Your task to perform on an android device: change the upload size in google photos Image 0: 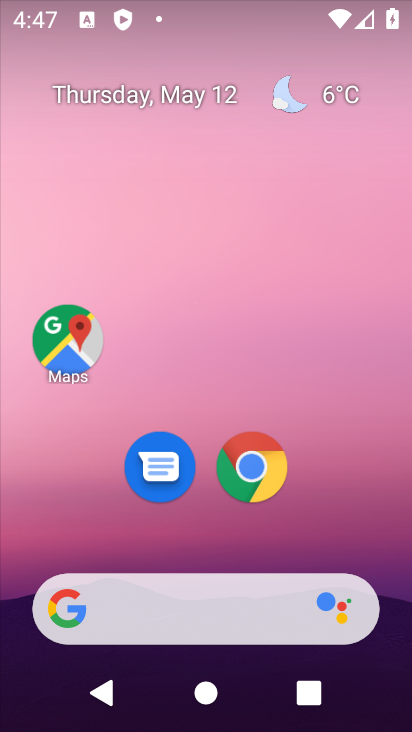
Step 0: drag from (234, 625) to (211, 96)
Your task to perform on an android device: change the upload size in google photos Image 1: 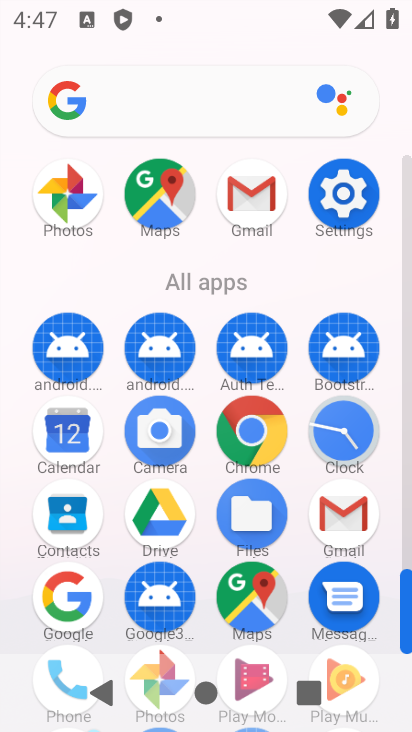
Step 1: drag from (248, 612) to (291, 180)
Your task to perform on an android device: change the upload size in google photos Image 2: 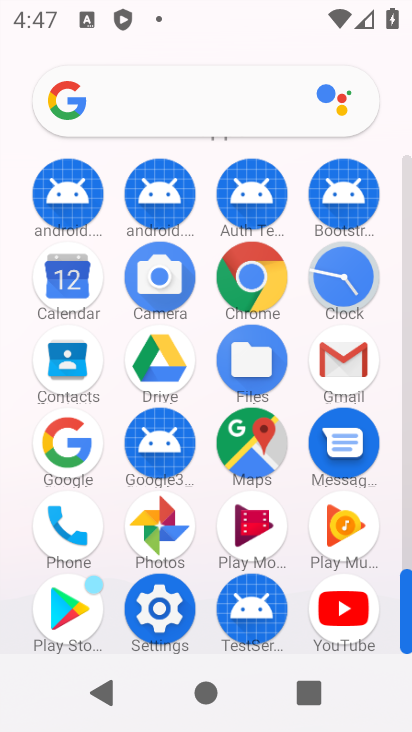
Step 2: click (165, 520)
Your task to perform on an android device: change the upload size in google photos Image 3: 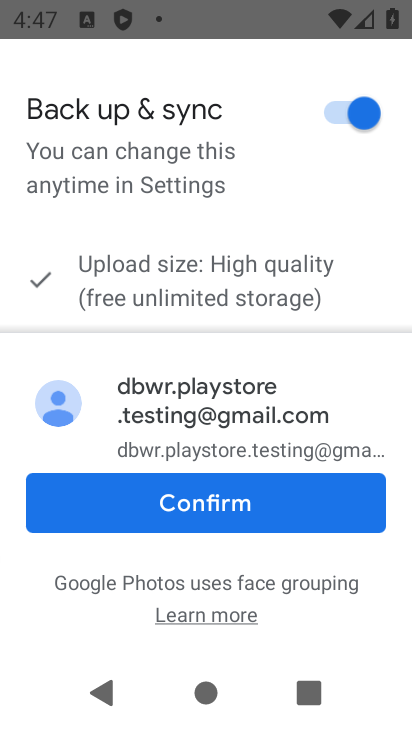
Step 3: click (243, 509)
Your task to perform on an android device: change the upload size in google photos Image 4: 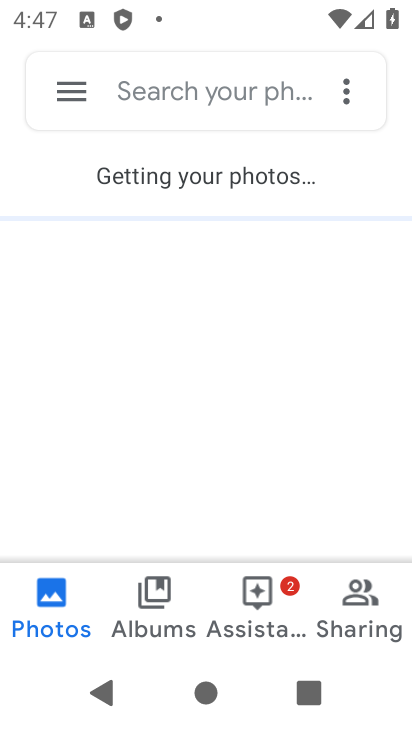
Step 4: click (75, 94)
Your task to perform on an android device: change the upload size in google photos Image 5: 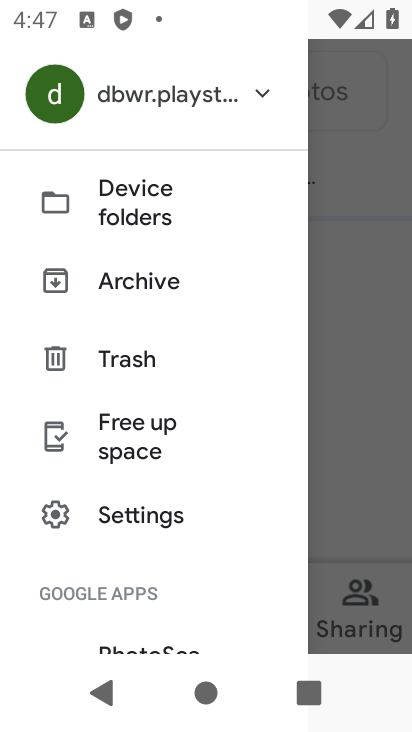
Step 5: click (140, 508)
Your task to perform on an android device: change the upload size in google photos Image 6: 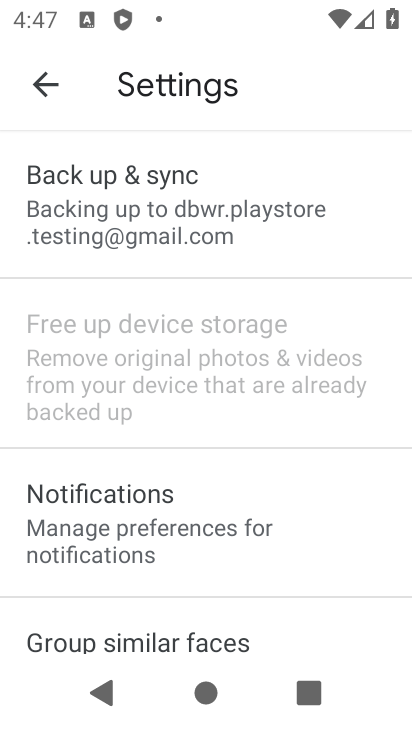
Step 6: click (233, 176)
Your task to perform on an android device: change the upload size in google photos Image 7: 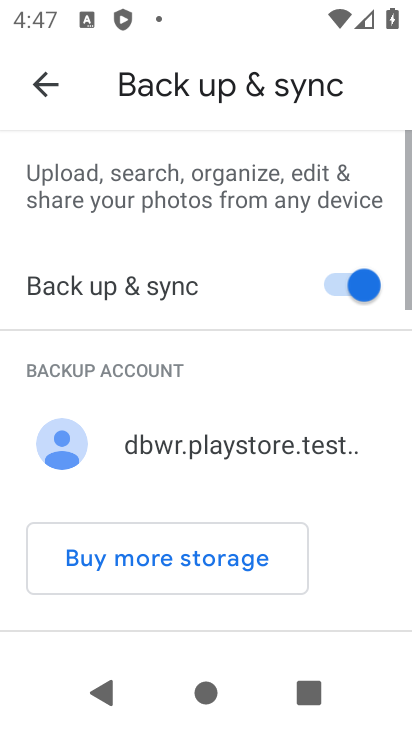
Step 7: drag from (90, 556) to (185, 105)
Your task to perform on an android device: change the upload size in google photos Image 8: 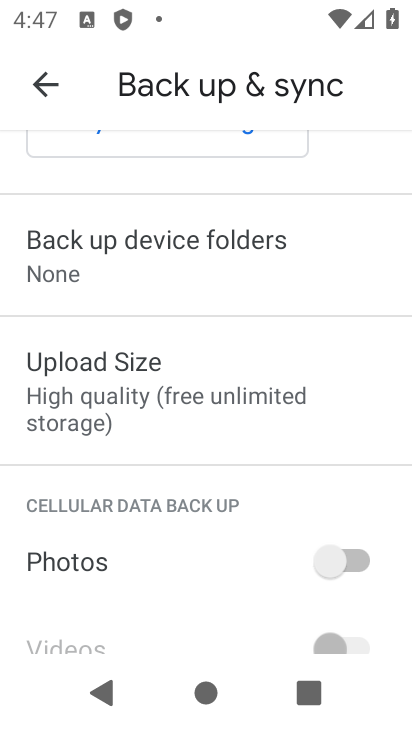
Step 8: click (187, 415)
Your task to perform on an android device: change the upload size in google photos Image 9: 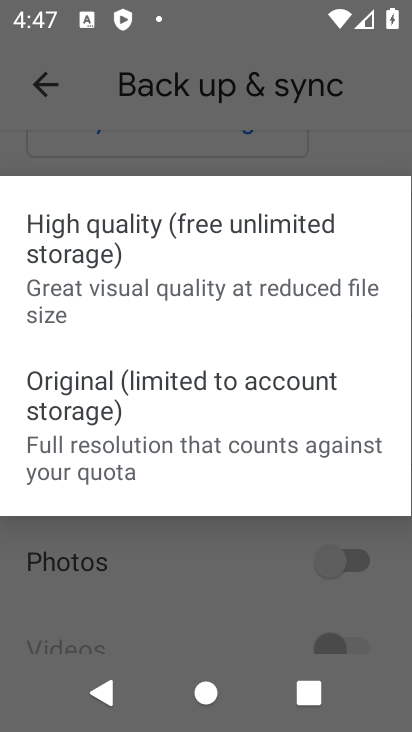
Step 9: click (193, 419)
Your task to perform on an android device: change the upload size in google photos Image 10: 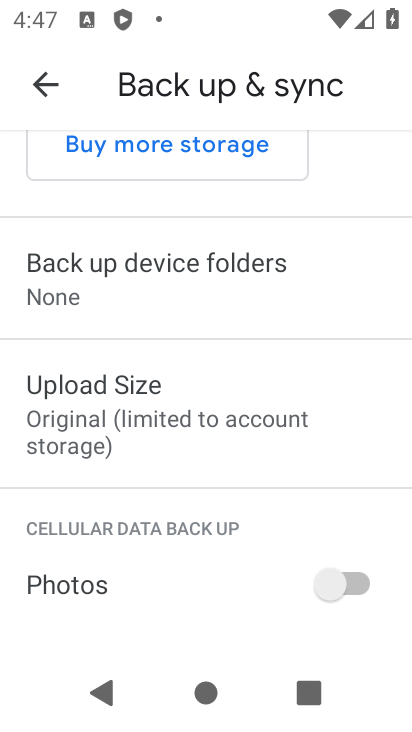
Step 10: task complete